Your task to perform on an android device: Open settings on Google Maps Image 0: 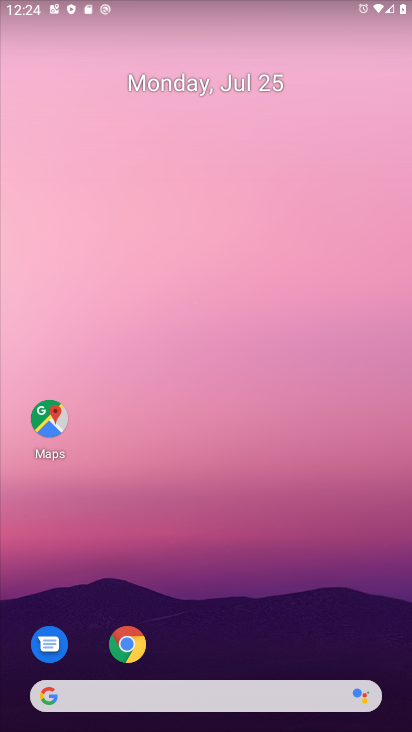
Step 0: drag from (334, 615) to (150, 4)
Your task to perform on an android device: Open settings on Google Maps Image 1: 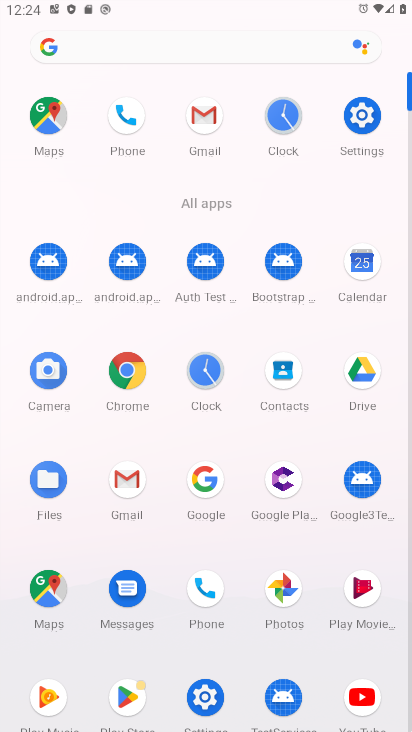
Step 1: click (57, 588)
Your task to perform on an android device: Open settings on Google Maps Image 2: 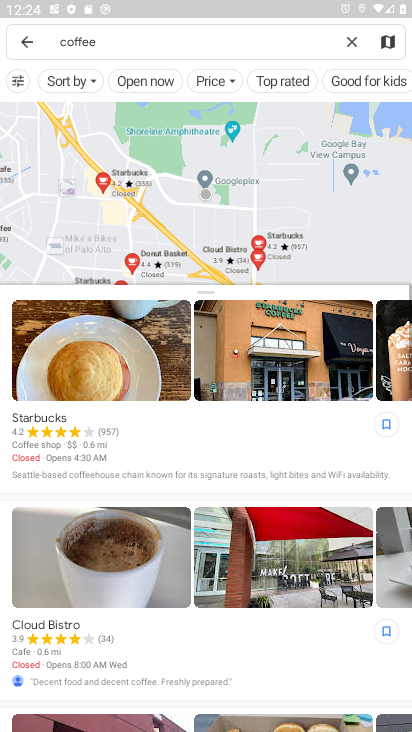
Step 2: click (352, 42)
Your task to perform on an android device: Open settings on Google Maps Image 3: 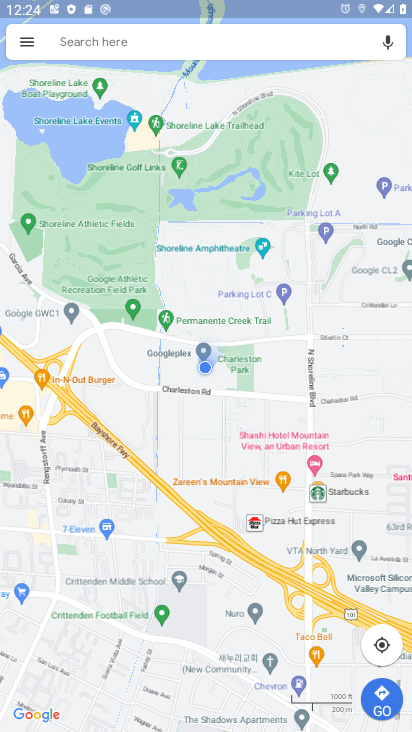
Step 3: click (17, 46)
Your task to perform on an android device: Open settings on Google Maps Image 4: 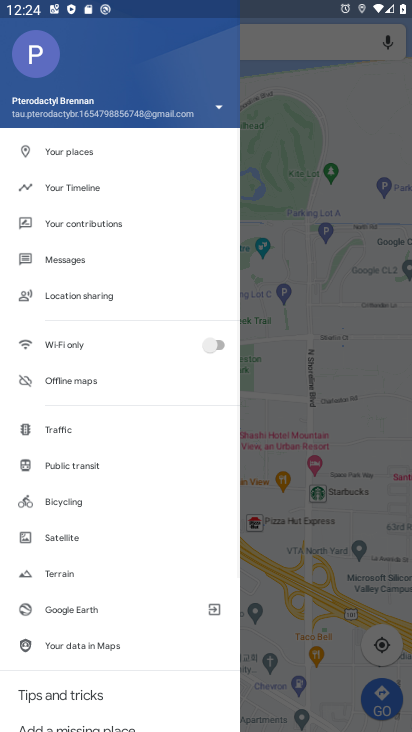
Step 4: drag from (74, 681) to (111, 45)
Your task to perform on an android device: Open settings on Google Maps Image 5: 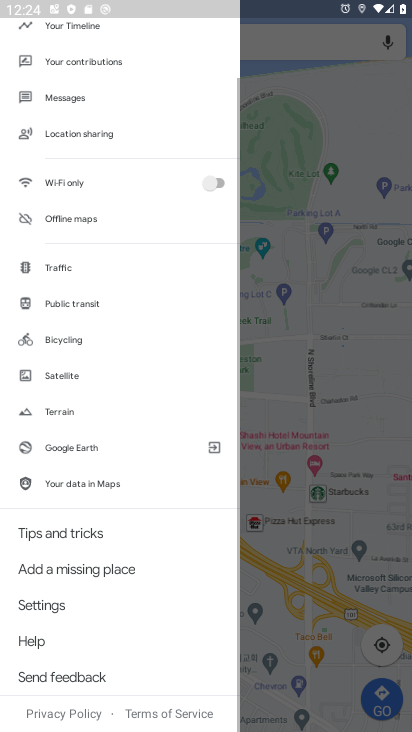
Step 5: click (35, 602)
Your task to perform on an android device: Open settings on Google Maps Image 6: 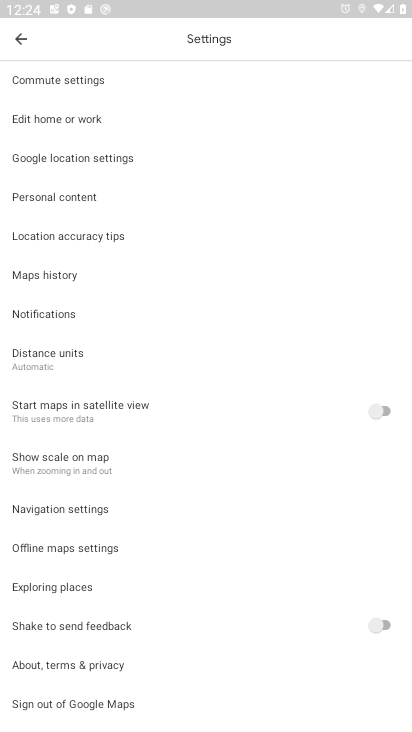
Step 6: task complete